Your task to perform on an android device: toggle translation in the chrome app Image 0: 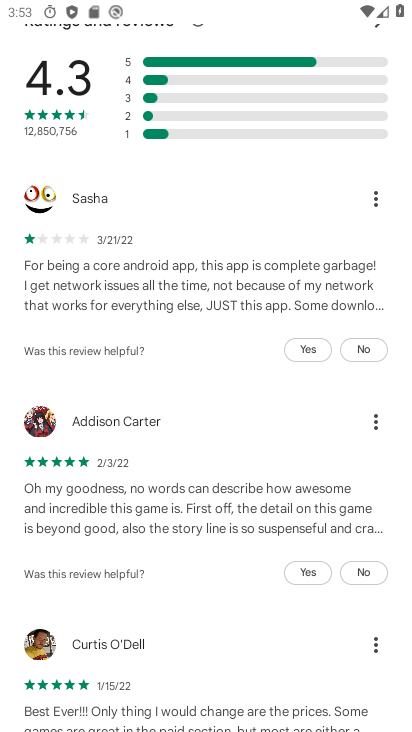
Step 0: press back button
Your task to perform on an android device: toggle translation in the chrome app Image 1: 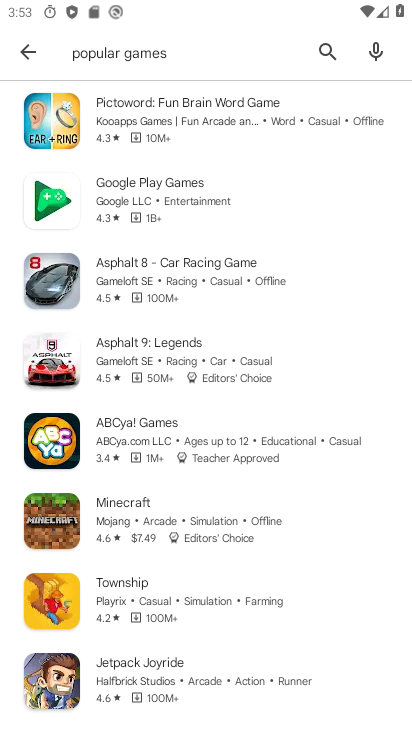
Step 1: press home button
Your task to perform on an android device: toggle translation in the chrome app Image 2: 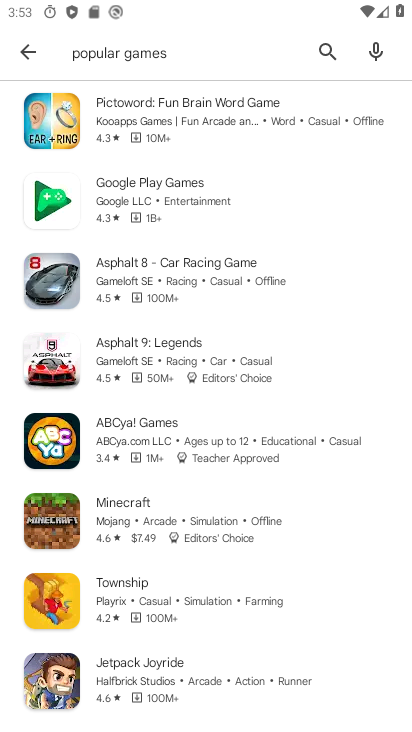
Step 2: press home button
Your task to perform on an android device: toggle translation in the chrome app Image 3: 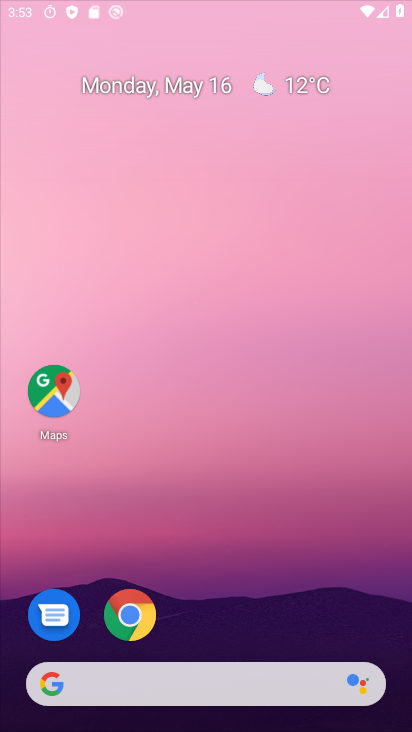
Step 3: press home button
Your task to perform on an android device: toggle translation in the chrome app Image 4: 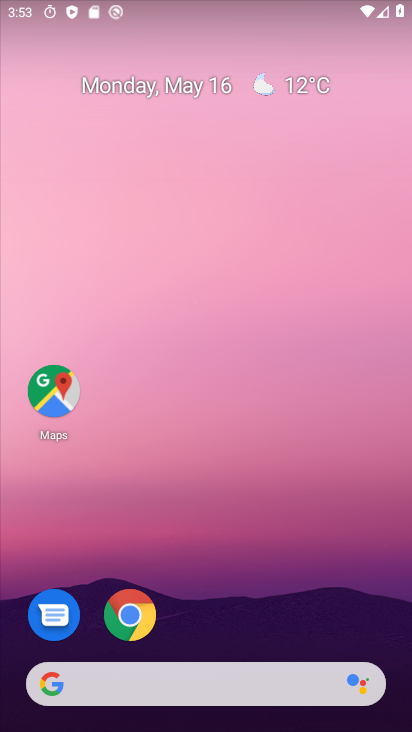
Step 4: drag from (312, 593) to (117, 17)
Your task to perform on an android device: toggle translation in the chrome app Image 5: 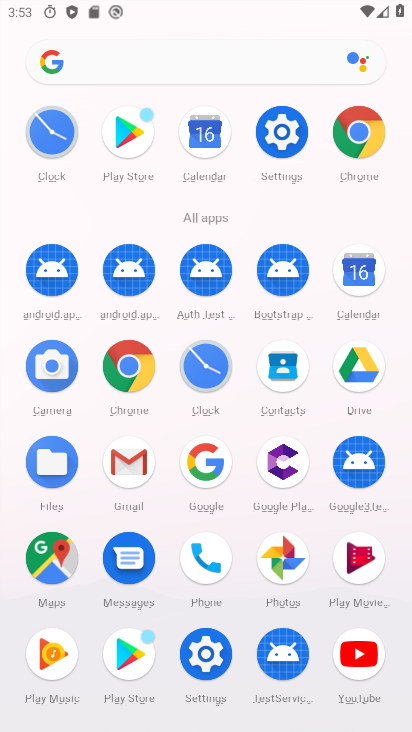
Step 5: click (354, 135)
Your task to perform on an android device: toggle translation in the chrome app Image 6: 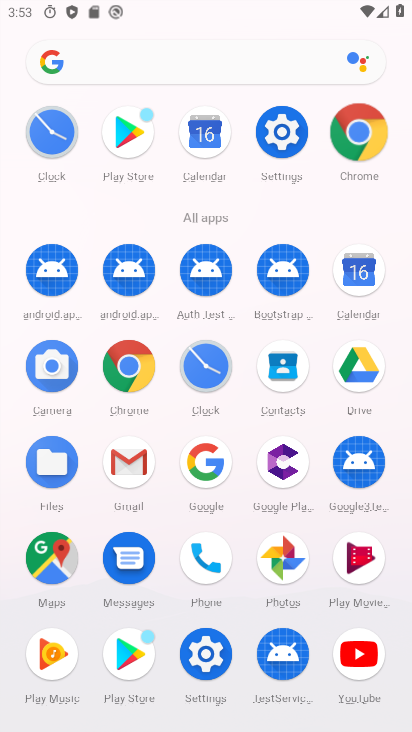
Step 6: click (354, 135)
Your task to perform on an android device: toggle translation in the chrome app Image 7: 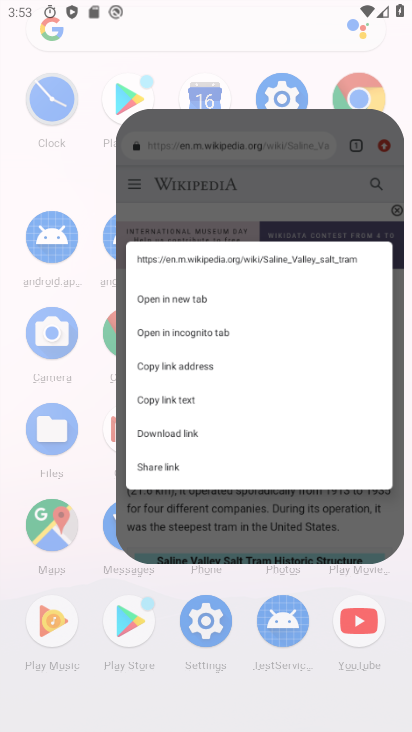
Step 7: click (354, 135)
Your task to perform on an android device: toggle translation in the chrome app Image 8: 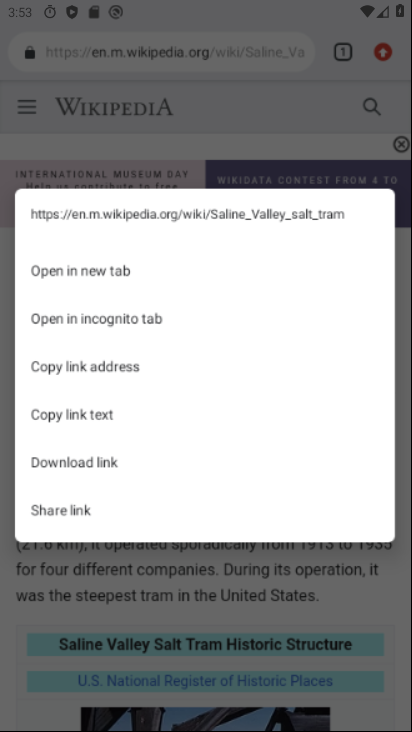
Step 8: click (355, 136)
Your task to perform on an android device: toggle translation in the chrome app Image 9: 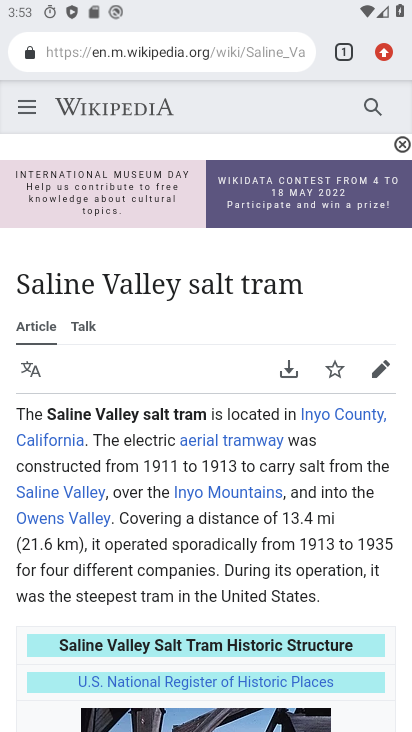
Step 9: press back button
Your task to perform on an android device: toggle translation in the chrome app Image 10: 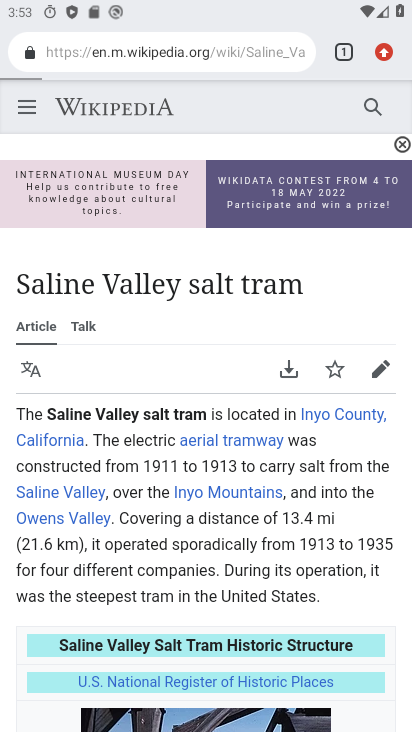
Step 10: press back button
Your task to perform on an android device: toggle translation in the chrome app Image 11: 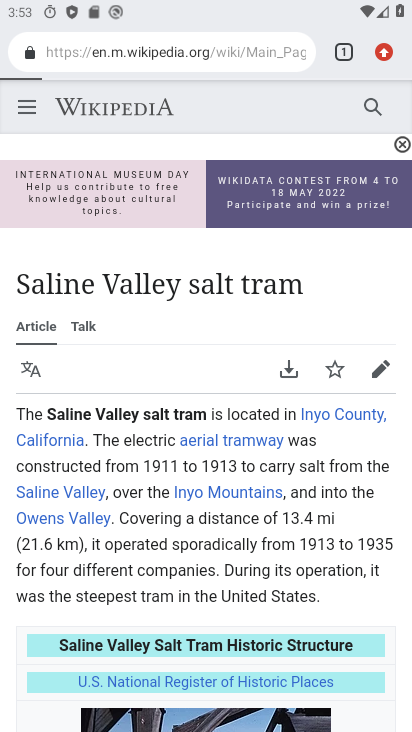
Step 11: press back button
Your task to perform on an android device: toggle translation in the chrome app Image 12: 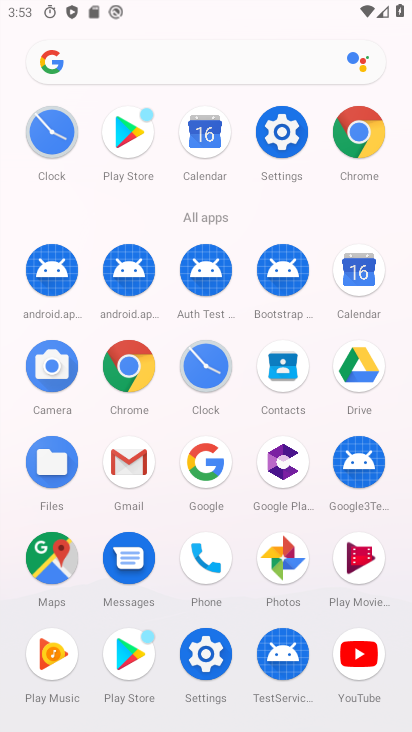
Step 12: click (367, 130)
Your task to perform on an android device: toggle translation in the chrome app Image 13: 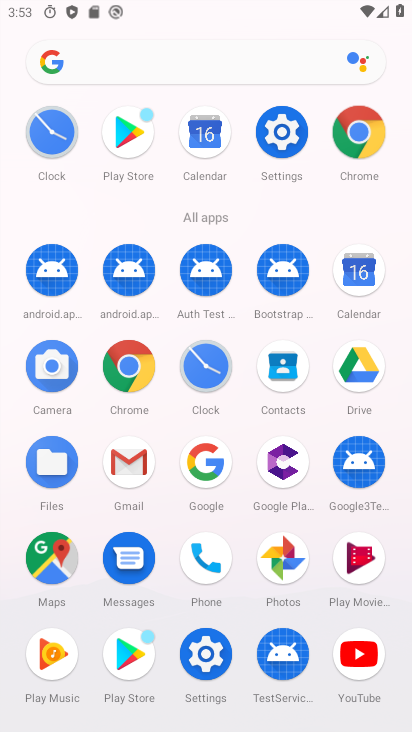
Step 13: click (363, 129)
Your task to perform on an android device: toggle translation in the chrome app Image 14: 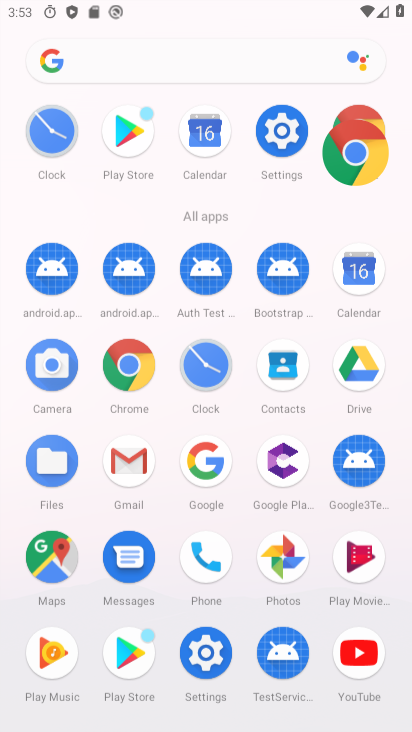
Step 14: click (362, 128)
Your task to perform on an android device: toggle translation in the chrome app Image 15: 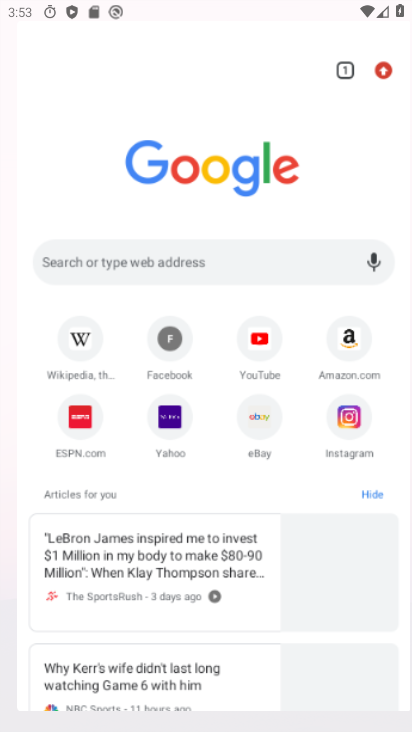
Step 15: click (361, 129)
Your task to perform on an android device: toggle translation in the chrome app Image 16: 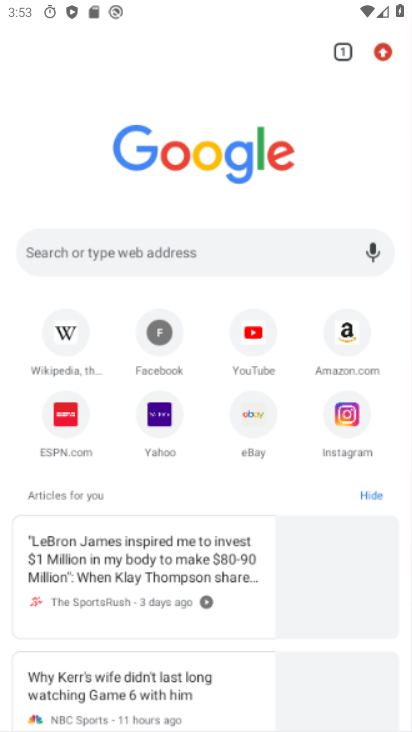
Step 16: click (361, 133)
Your task to perform on an android device: toggle translation in the chrome app Image 17: 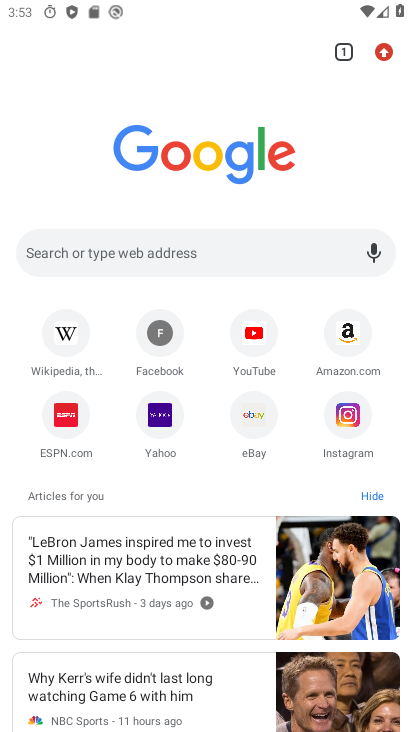
Step 17: click (381, 57)
Your task to perform on an android device: toggle translation in the chrome app Image 18: 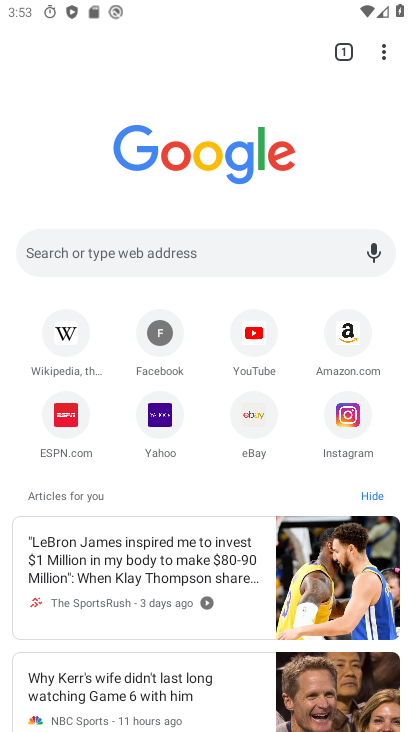
Step 18: drag from (381, 57) to (189, 474)
Your task to perform on an android device: toggle translation in the chrome app Image 19: 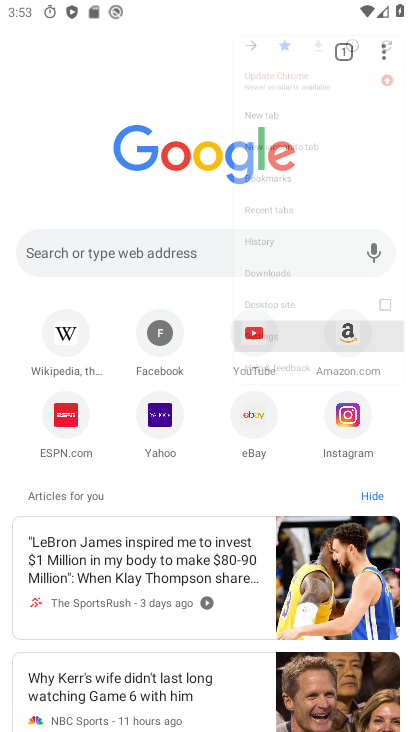
Step 19: click (188, 474)
Your task to perform on an android device: toggle translation in the chrome app Image 20: 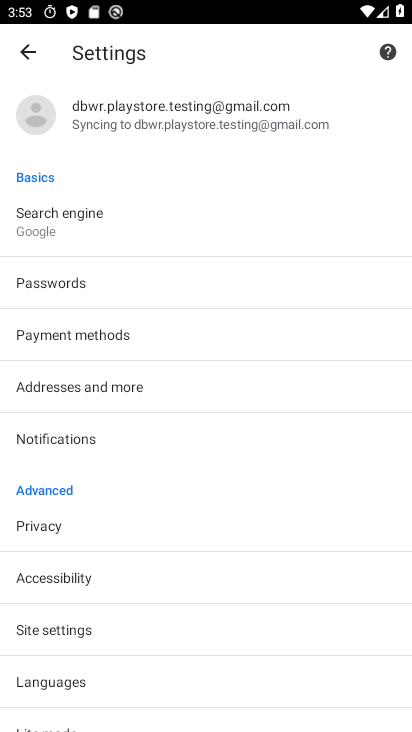
Step 20: drag from (160, 571) to (118, 186)
Your task to perform on an android device: toggle translation in the chrome app Image 21: 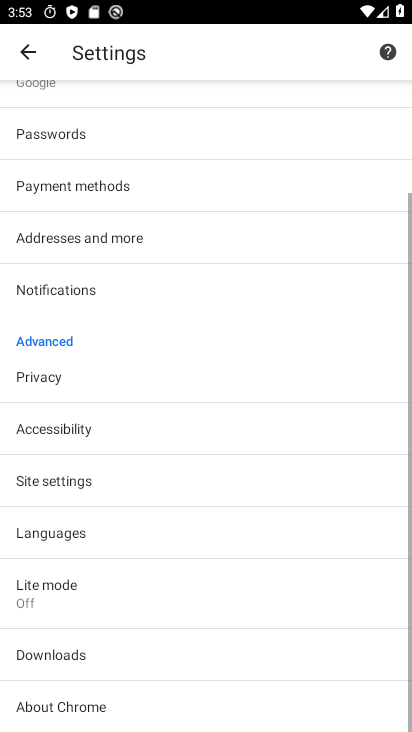
Step 21: drag from (129, 474) to (97, 165)
Your task to perform on an android device: toggle translation in the chrome app Image 22: 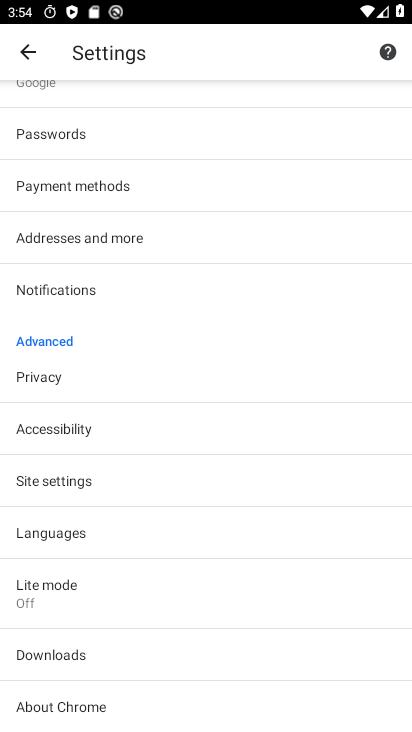
Step 22: click (34, 533)
Your task to perform on an android device: toggle translation in the chrome app Image 23: 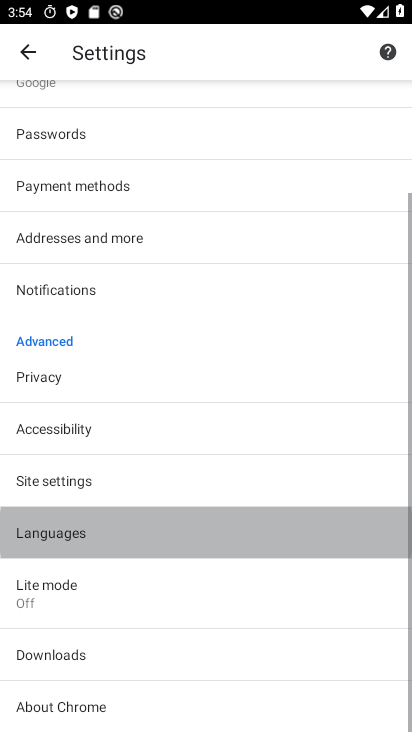
Step 23: click (35, 532)
Your task to perform on an android device: toggle translation in the chrome app Image 24: 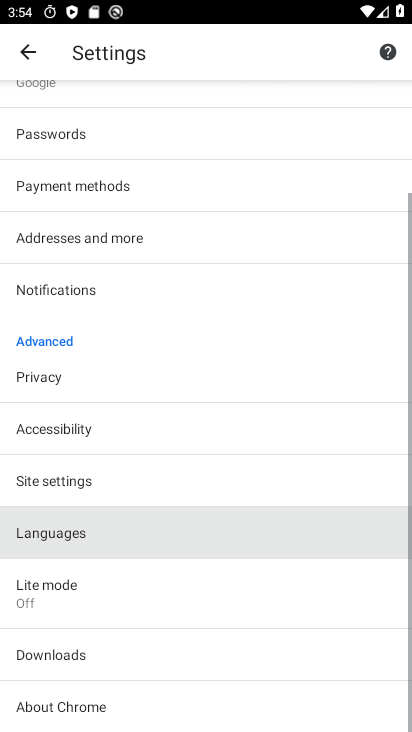
Step 24: click (37, 531)
Your task to perform on an android device: toggle translation in the chrome app Image 25: 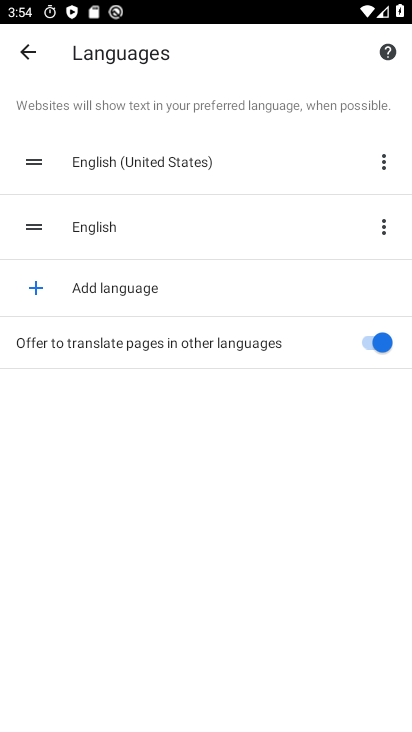
Step 25: click (38, 531)
Your task to perform on an android device: toggle translation in the chrome app Image 26: 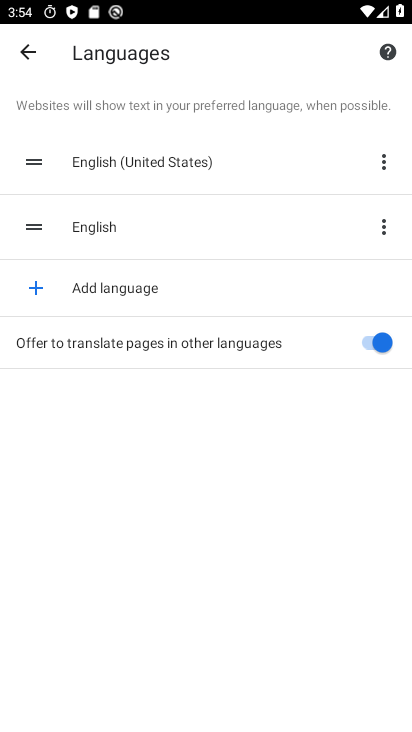
Step 26: click (385, 344)
Your task to perform on an android device: toggle translation in the chrome app Image 27: 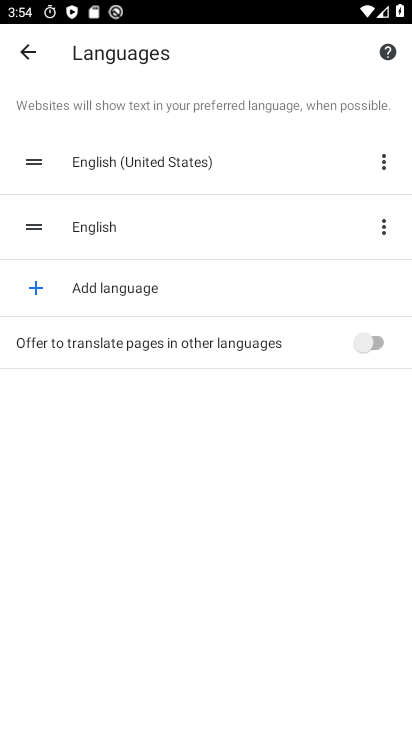
Step 27: task complete